Your task to perform on an android device: What is the recent news? Image 0: 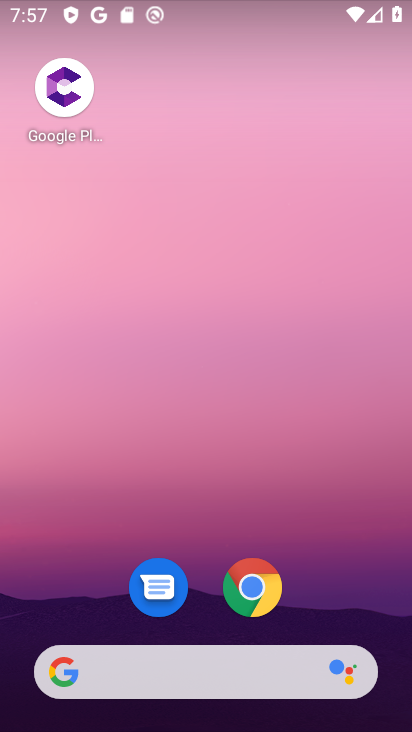
Step 0: click (175, 675)
Your task to perform on an android device: What is the recent news? Image 1: 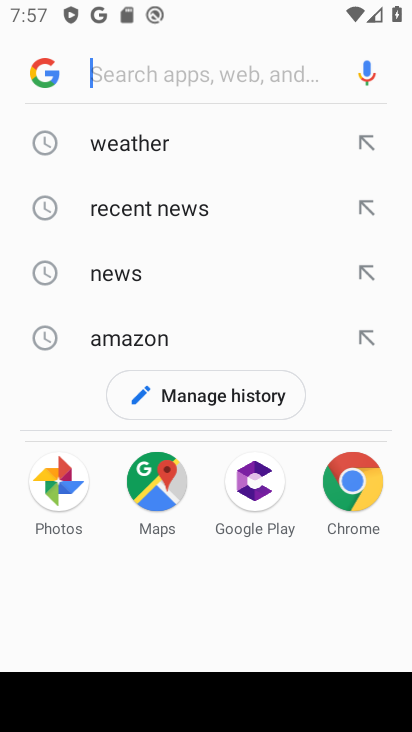
Step 1: click (157, 211)
Your task to perform on an android device: What is the recent news? Image 2: 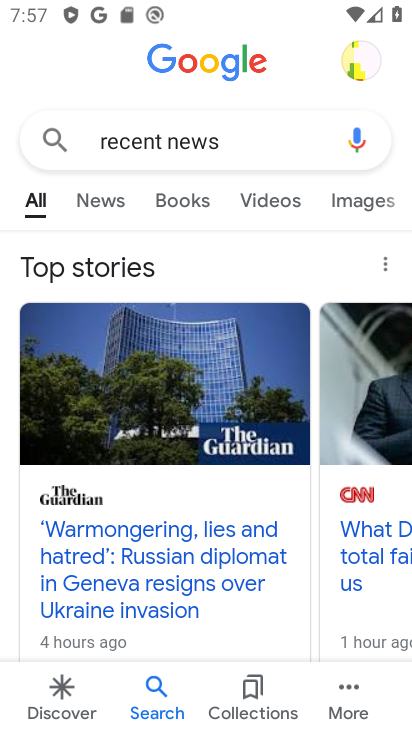
Step 2: task complete